Your task to perform on an android device: turn on the 12-hour format for clock Image 0: 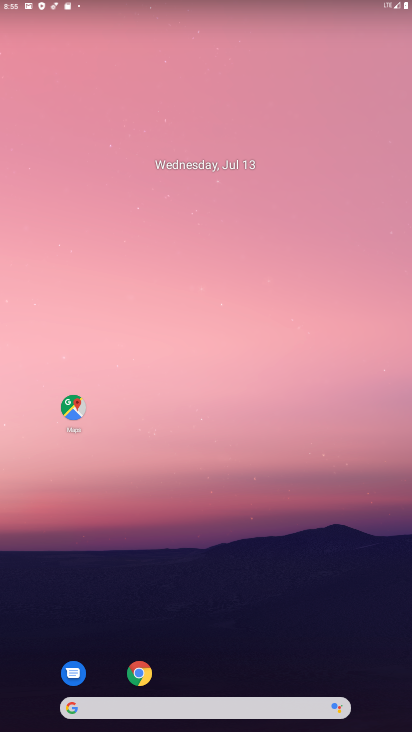
Step 0: drag from (170, 647) to (205, 85)
Your task to perform on an android device: turn on the 12-hour format for clock Image 1: 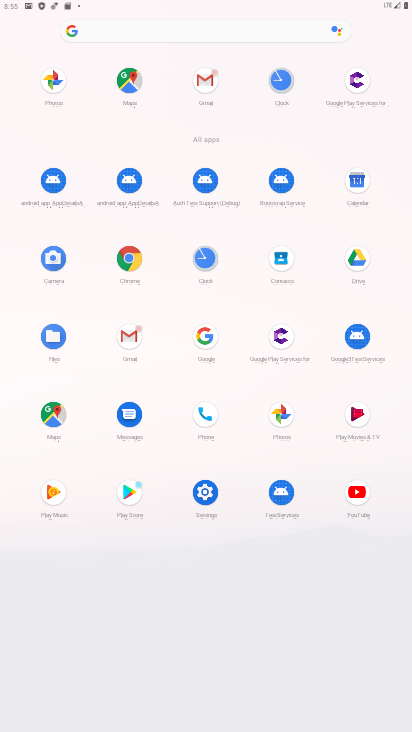
Step 1: click (200, 252)
Your task to perform on an android device: turn on the 12-hour format for clock Image 2: 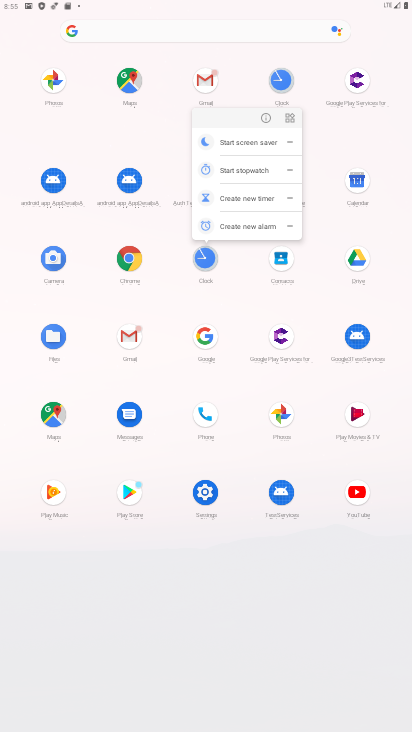
Step 2: click (266, 121)
Your task to perform on an android device: turn on the 12-hour format for clock Image 3: 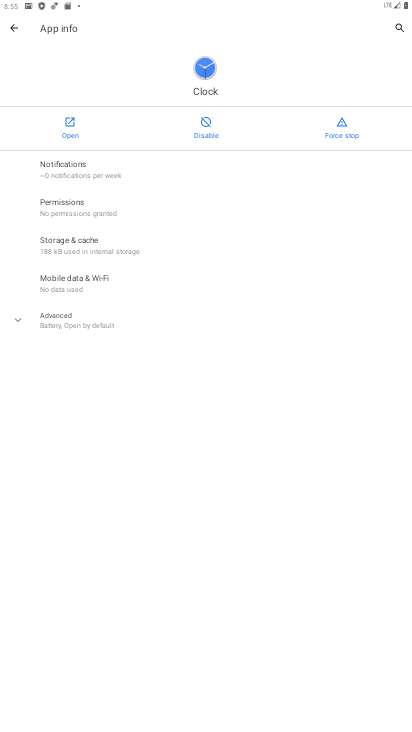
Step 3: click (74, 130)
Your task to perform on an android device: turn on the 12-hour format for clock Image 4: 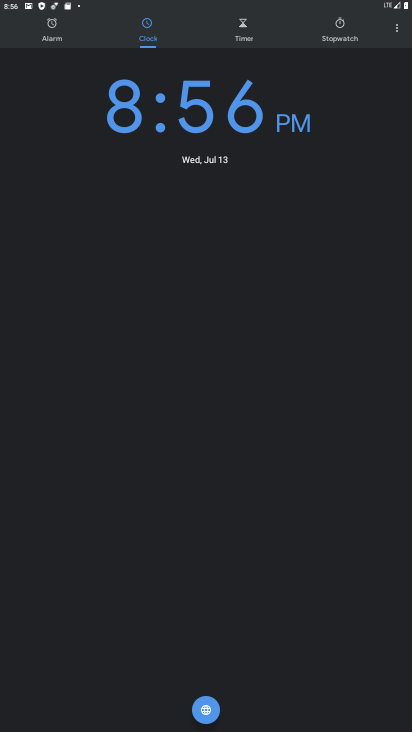
Step 4: click (401, 19)
Your task to perform on an android device: turn on the 12-hour format for clock Image 5: 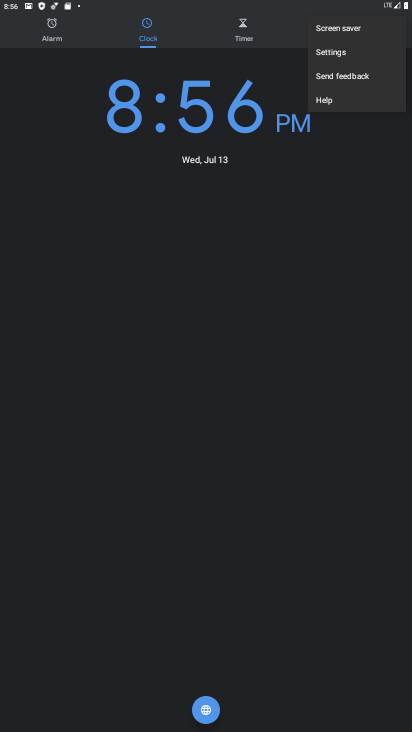
Step 5: click (336, 55)
Your task to perform on an android device: turn on the 12-hour format for clock Image 6: 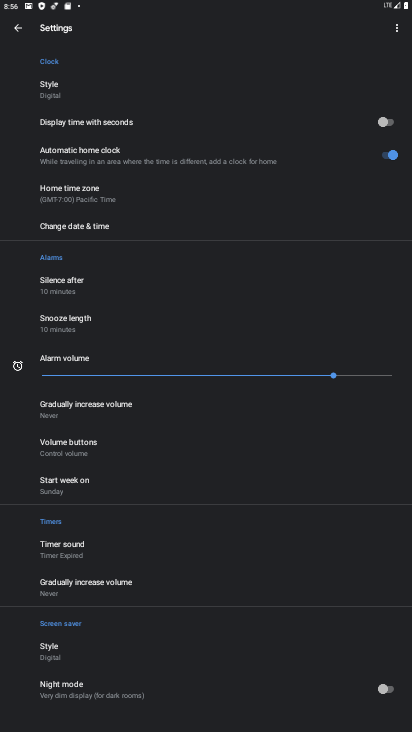
Step 6: drag from (240, 506) to (230, 178)
Your task to perform on an android device: turn on the 12-hour format for clock Image 7: 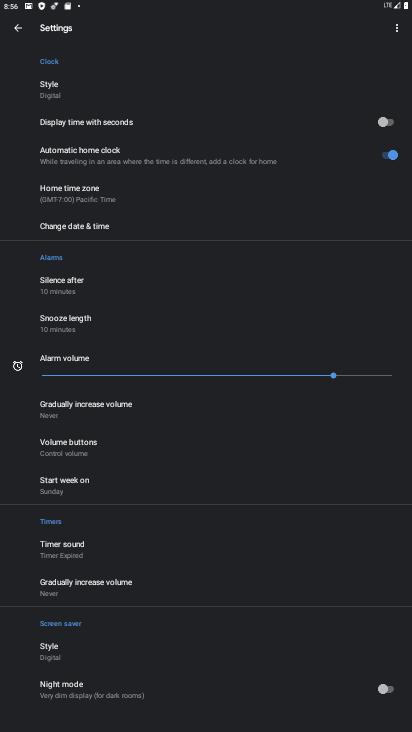
Step 7: click (140, 223)
Your task to perform on an android device: turn on the 12-hour format for clock Image 8: 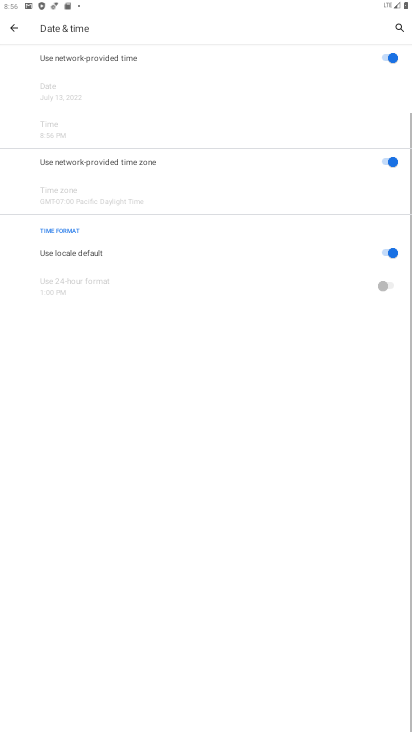
Step 8: drag from (221, 479) to (234, 93)
Your task to perform on an android device: turn on the 12-hour format for clock Image 9: 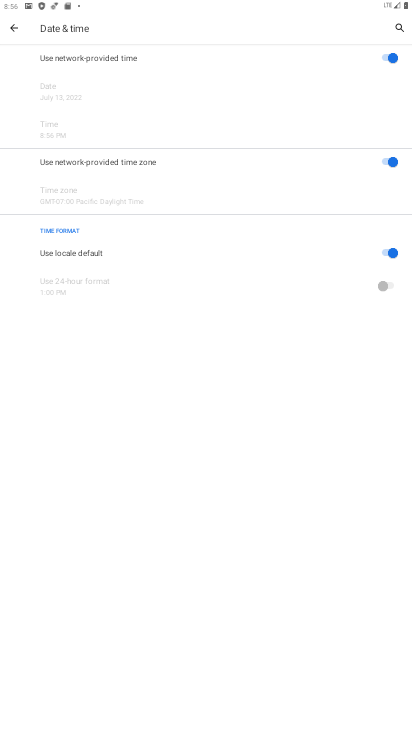
Step 9: click (385, 256)
Your task to perform on an android device: turn on the 12-hour format for clock Image 10: 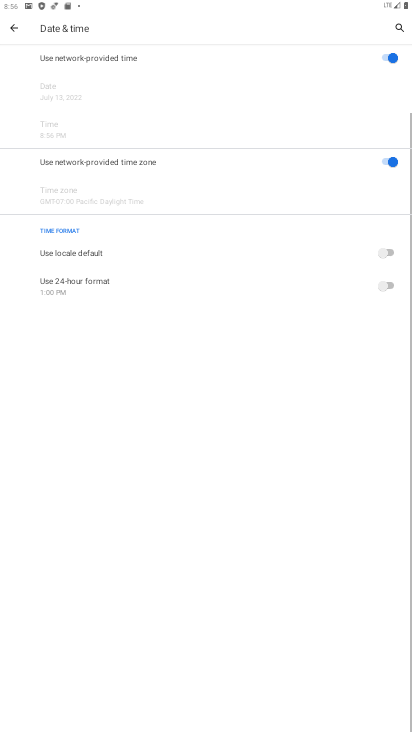
Step 10: click (379, 288)
Your task to perform on an android device: turn on the 12-hour format for clock Image 11: 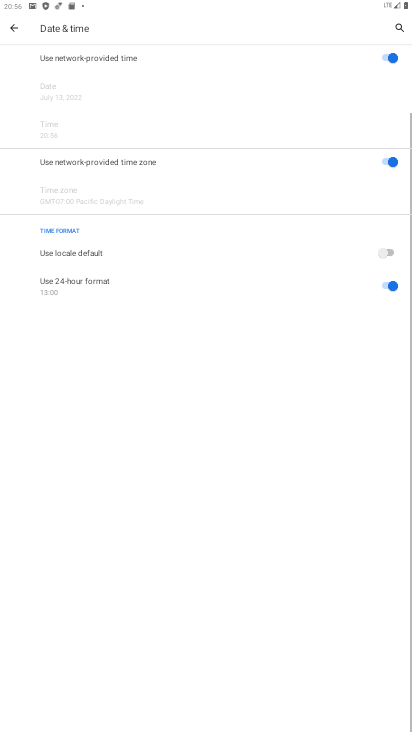
Step 11: task complete